Your task to perform on an android device: Search for sushi restaurants on Maps Image 0: 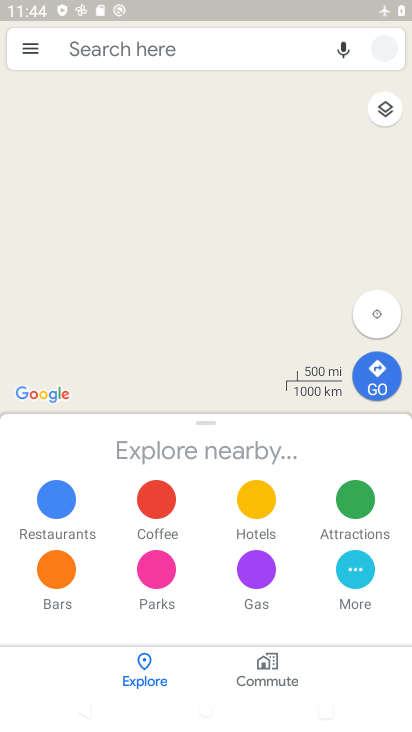
Step 0: press home button
Your task to perform on an android device: Search for sushi restaurants on Maps Image 1: 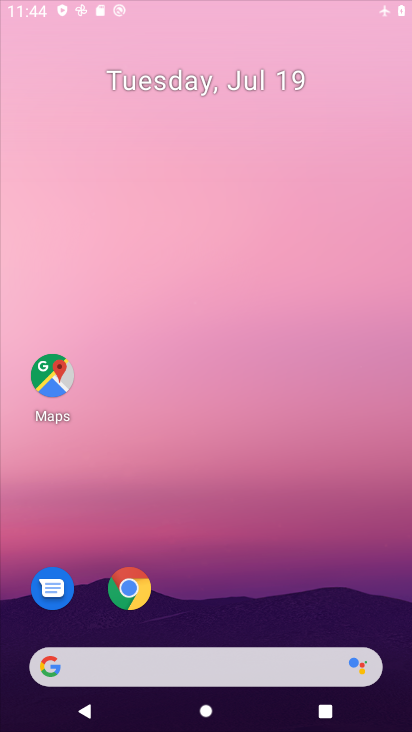
Step 1: drag from (400, 626) to (272, 17)
Your task to perform on an android device: Search for sushi restaurants on Maps Image 2: 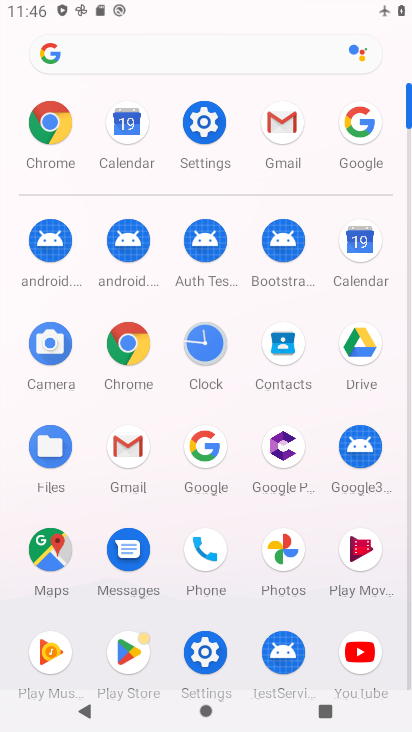
Step 2: click (43, 550)
Your task to perform on an android device: Search for sushi restaurants on Maps Image 3: 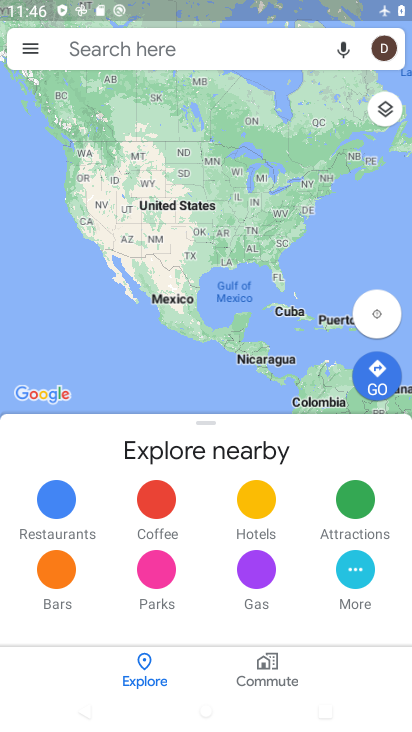
Step 3: click (129, 60)
Your task to perform on an android device: Search for sushi restaurants on Maps Image 4: 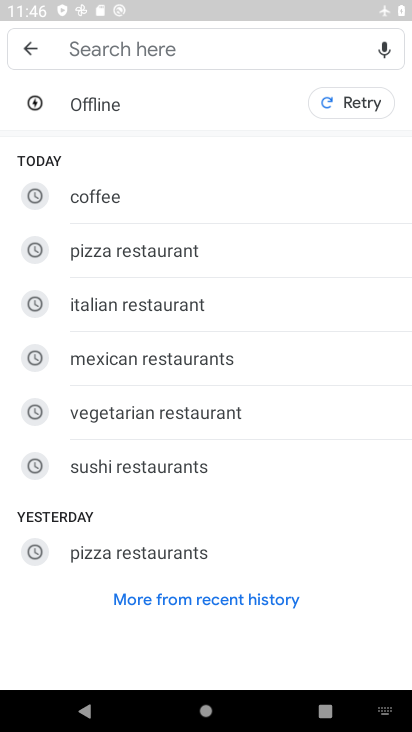
Step 4: click (130, 465)
Your task to perform on an android device: Search for sushi restaurants on Maps Image 5: 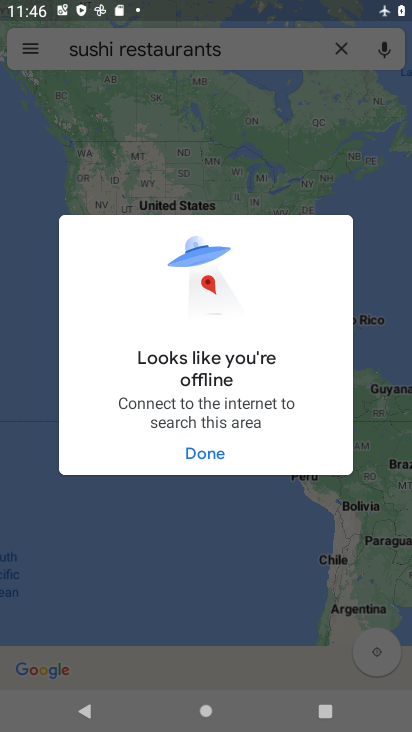
Step 5: task complete